Your task to perform on an android device: turn on improve location accuracy Image 0: 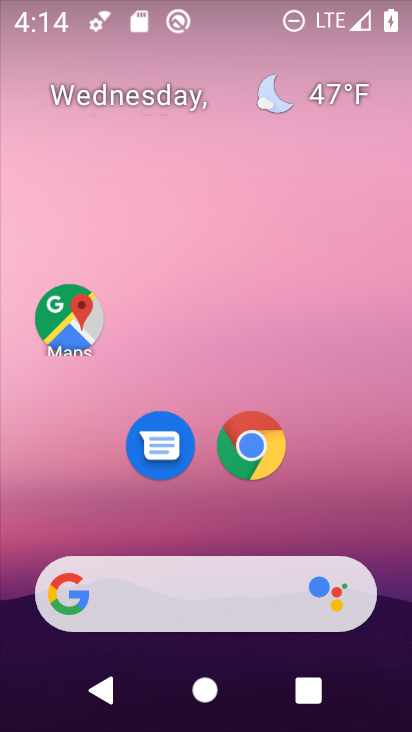
Step 0: drag from (275, 533) to (265, 49)
Your task to perform on an android device: turn on improve location accuracy Image 1: 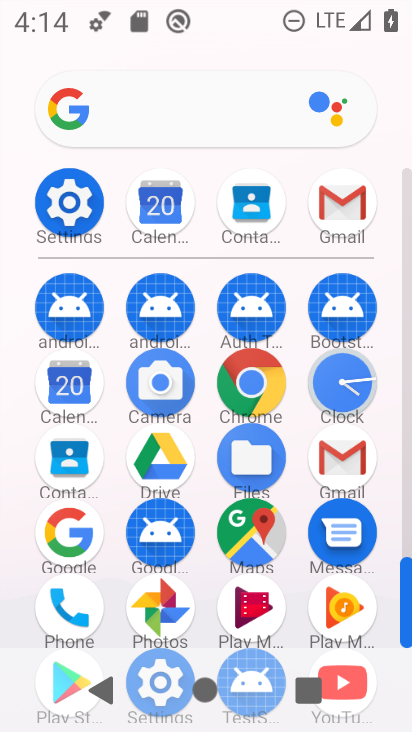
Step 1: click (76, 202)
Your task to perform on an android device: turn on improve location accuracy Image 2: 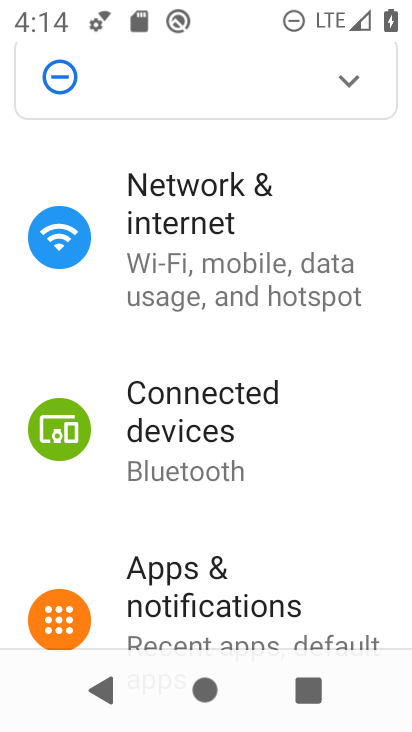
Step 2: drag from (261, 499) to (266, 320)
Your task to perform on an android device: turn on improve location accuracy Image 3: 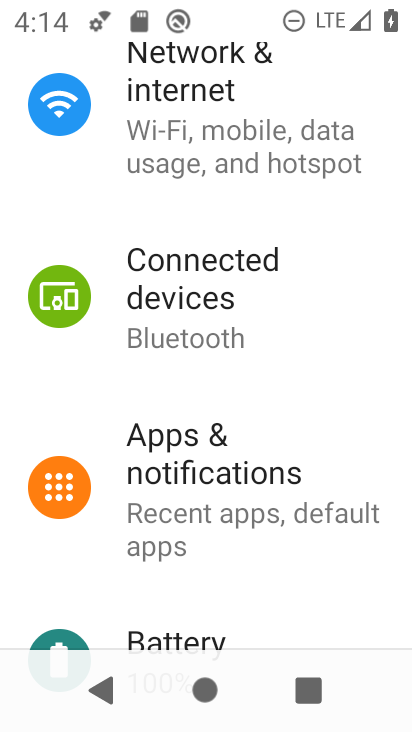
Step 3: drag from (275, 413) to (267, 257)
Your task to perform on an android device: turn on improve location accuracy Image 4: 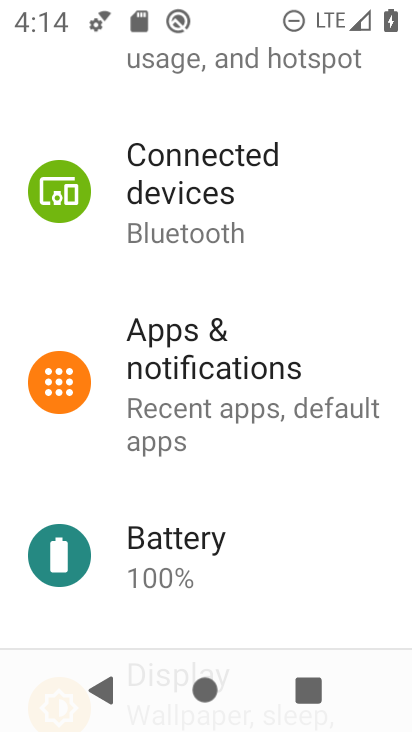
Step 4: drag from (240, 505) to (257, 362)
Your task to perform on an android device: turn on improve location accuracy Image 5: 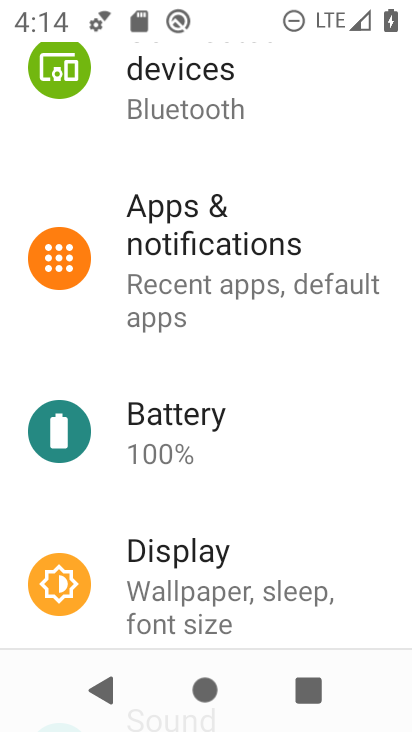
Step 5: drag from (265, 509) to (283, 328)
Your task to perform on an android device: turn on improve location accuracy Image 6: 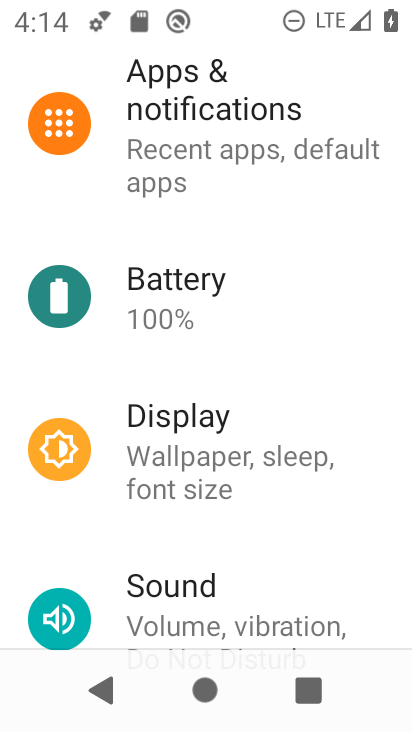
Step 6: drag from (250, 527) to (274, 379)
Your task to perform on an android device: turn on improve location accuracy Image 7: 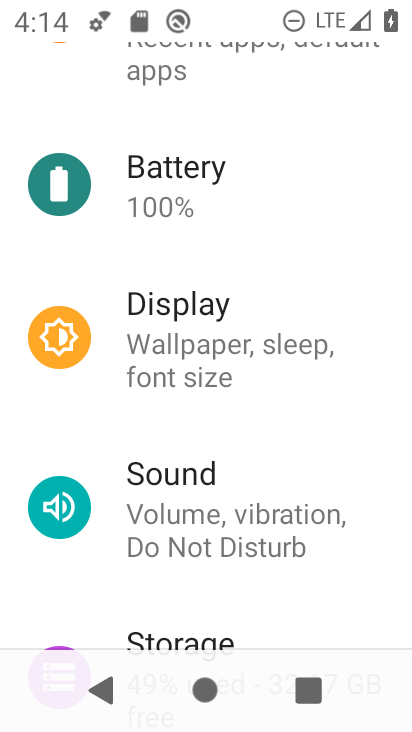
Step 7: drag from (256, 484) to (299, 313)
Your task to perform on an android device: turn on improve location accuracy Image 8: 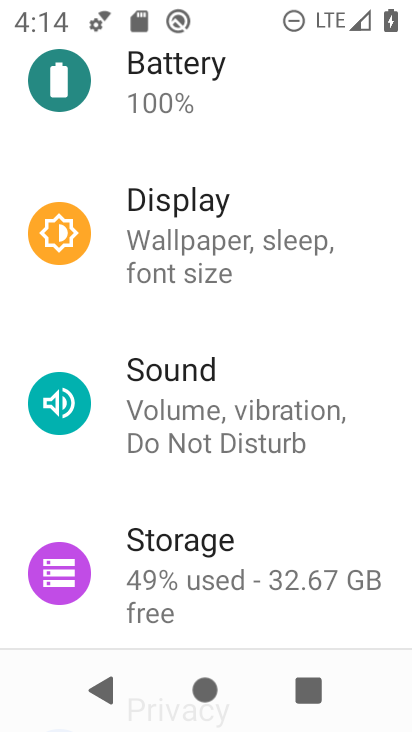
Step 8: drag from (230, 522) to (286, 321)
Your task to perform on an android device: turn on improve location accuracy Image 9: 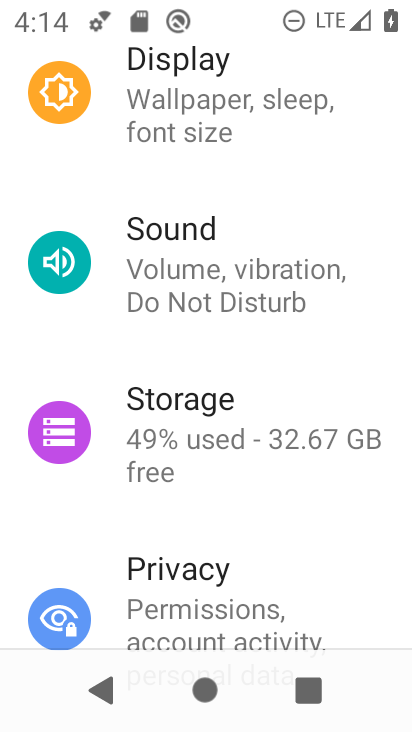
Step 9: drag from (233, 538) to (315, 344)
Your task to perform on an android device: turn on improve location accuracy Image 10: 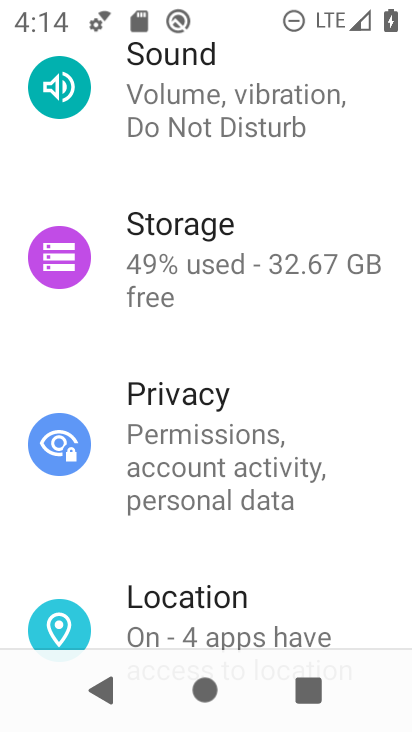
Step 10: drag from (213, 566) to (301, 329)
Your task to perform on an android device: turn on improve location accuracy Image 11: 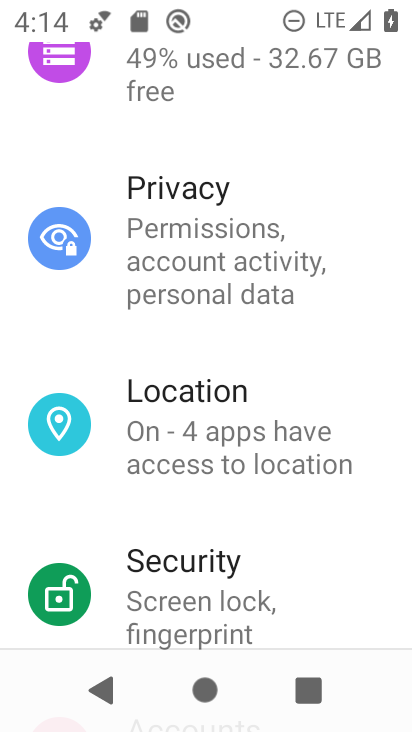
Step 11: click (179, 385)
Your task to perform on an android device: turn on improve location accuracy Image 12: 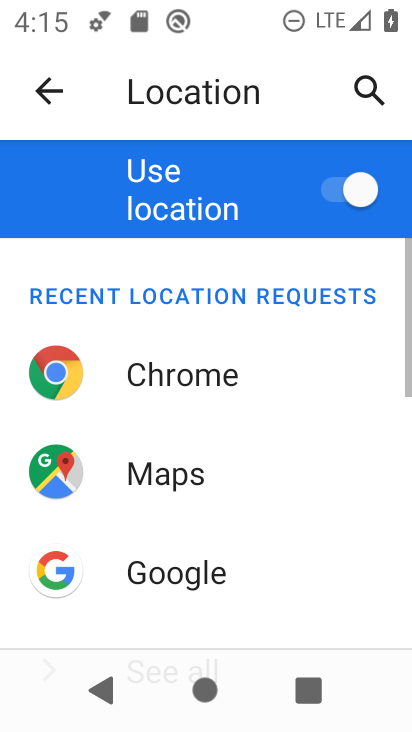
Step 12: drag from (244, 525) to (266, 292)
Your task to perform on an android device: turn on improve location accuracy Image 13: 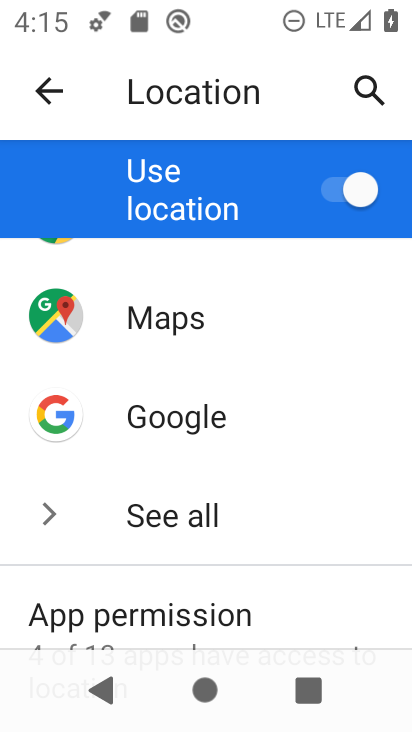
Step 13: drag from (228, 551) to (275, 383)
Your task to perform on an android device: turn on improve location accuracy Image 14: 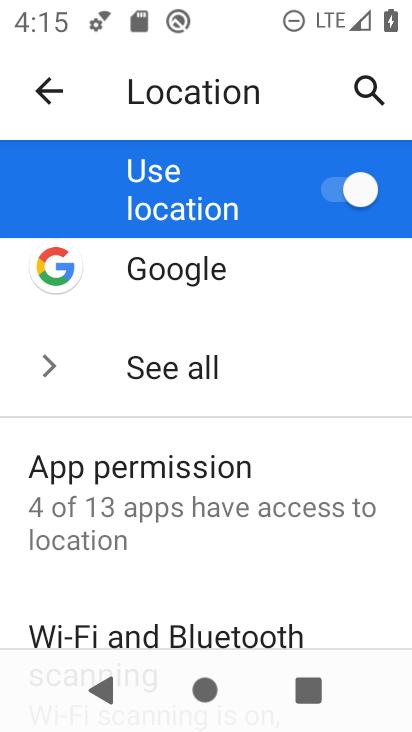
Step 14: drag from (254, 534) to (339, 398)
Your task to perform on an android device: turn on improve location accuracy Image 15: 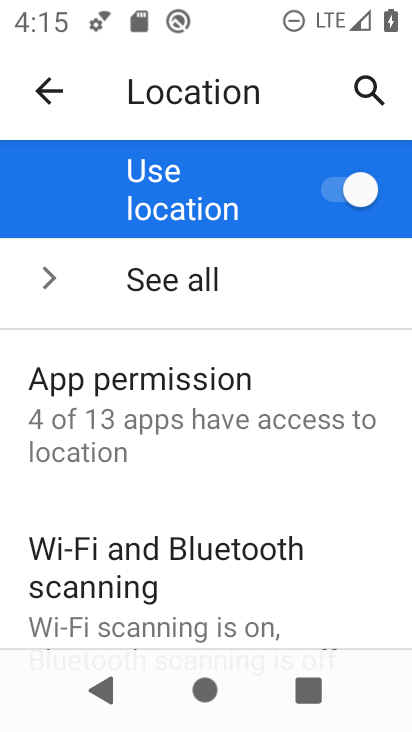
Step 15: drag from (264, 598) to (322, 445)
Your task to perform on an android device: turn on improve location accuracy Image 16: 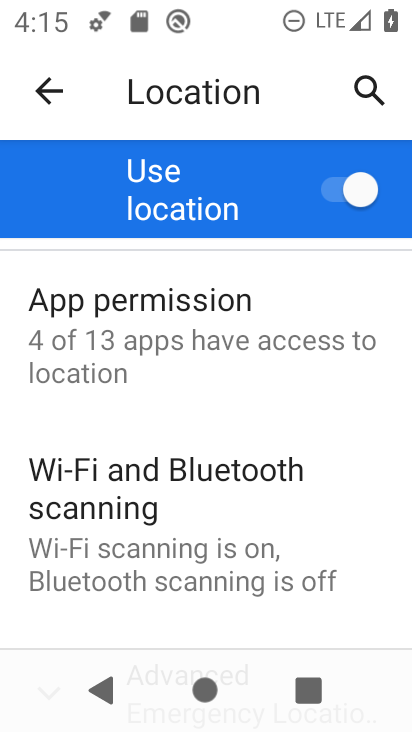
Step 16: drag from (267, 524) to (319, 387)
Your task to perform on an android device: turn on improve location accuracy Image 17: 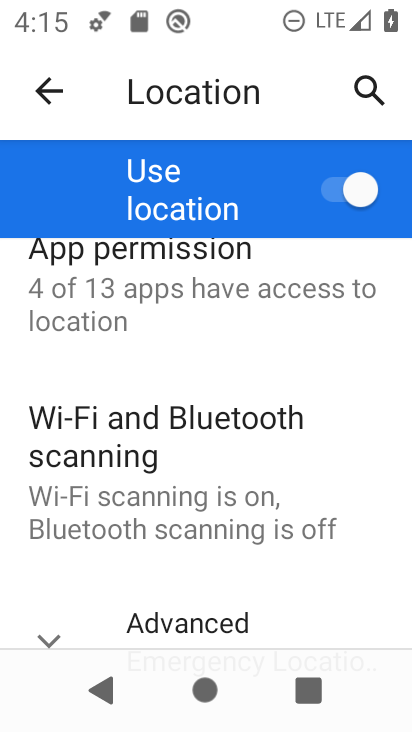
Step 17: drag from (223, 580) to (265, 424)
Your task to perform on an android device: turn on improve location accuracy Image 18: 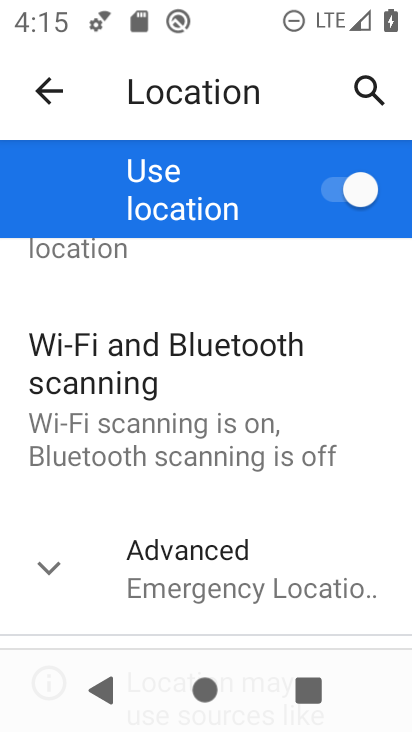
Step 18: click (213, 548)
Your task to perform on an android device: turn on improve location accuracy Image 19: 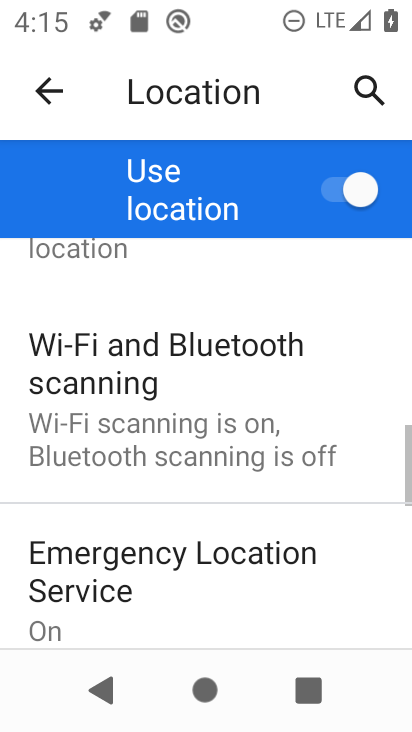
Step 19: drag from (214, 538) to (255, 356)
Your task to perform on an android device: turn on improve location accuracy Image 20: 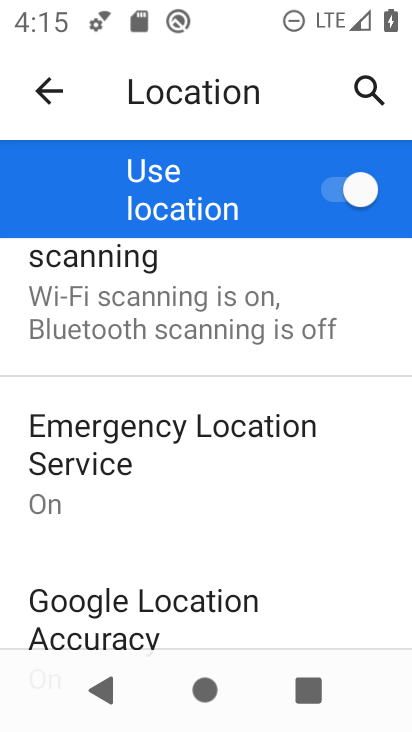
Step 20: drag from (209, 512) to (282, 353)
Your task to perform on an android device: turn on improve location accuracy Image 21: 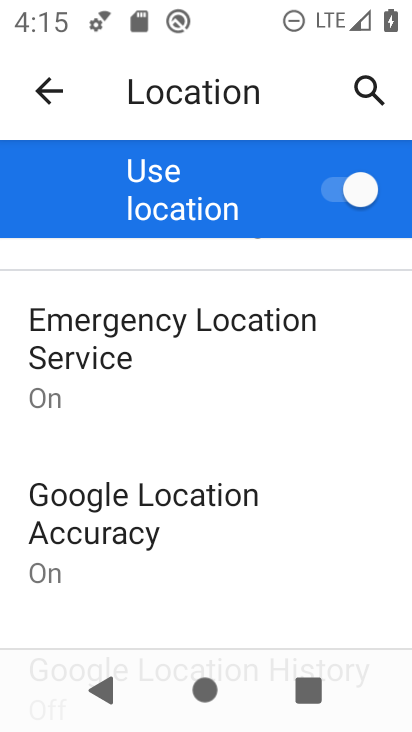
Step 21: click (230, 499)
Your task to perform on an android device: turn on improve location accuracy Image 22: 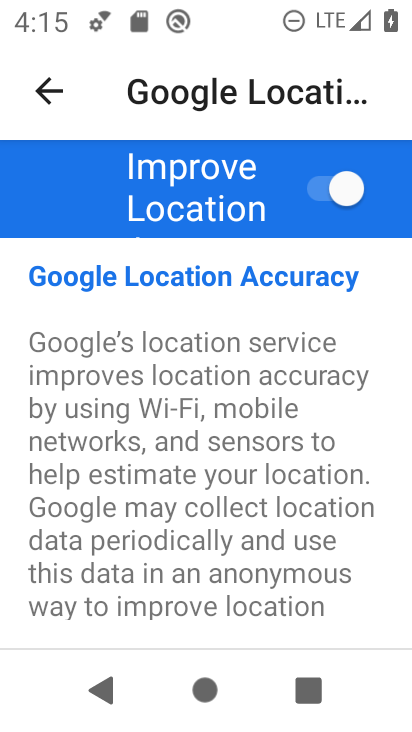
Step 22: task complete